Your task to perform on an android device: open the mobile data screen to see how much data has been used Image 0: 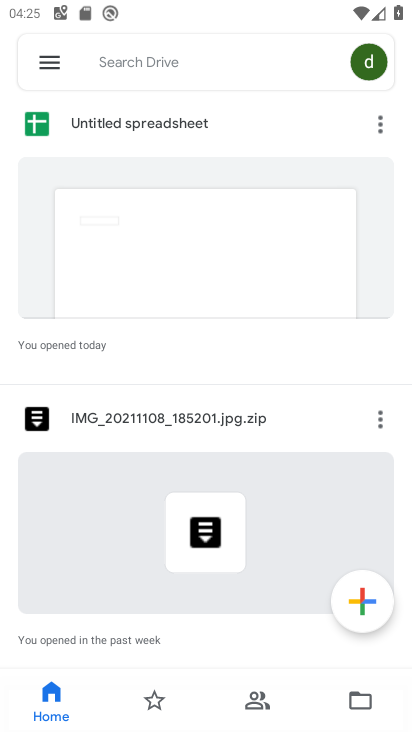
Step 0: press home button
Your task to perform on an android device: open the mobile data screen to see how much data has been used Image 1: 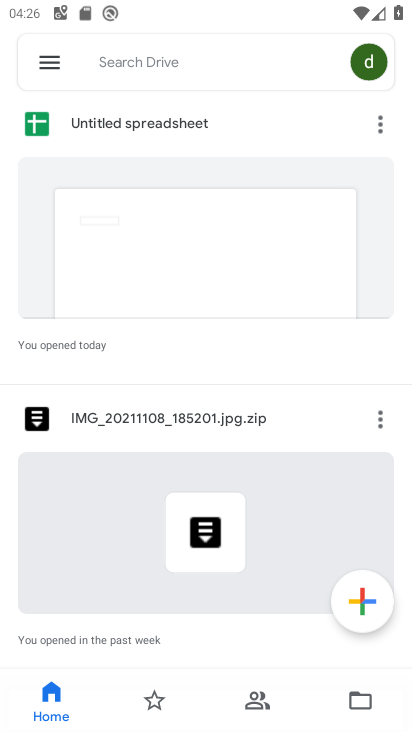
Step 1: press home button
Your task to perform on an android device: open the mobile data screen to see how much data has been used Image 2: 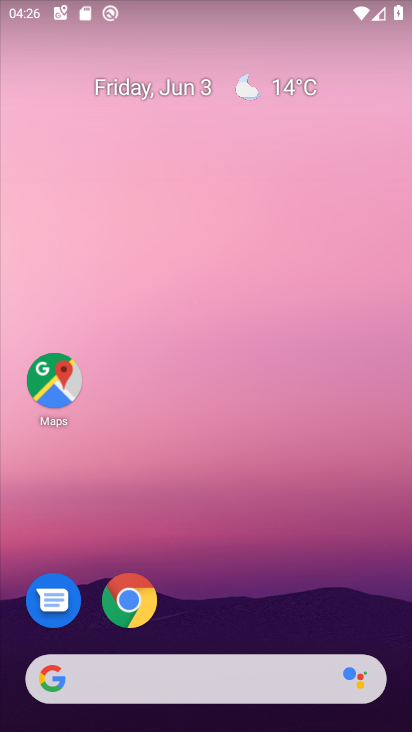
Step 2: drag from (307, 571) to (277, 189)
Your task to perform on an android device: open the mobile data screen to see how much data has been used Image 3: 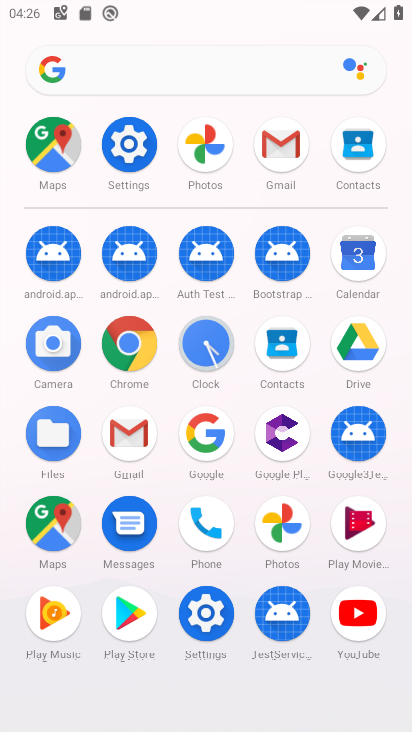
Step 3: click (133, 158)
Your task to perform on an android device: open the mobile data screen to see how much data has been used Image 4: 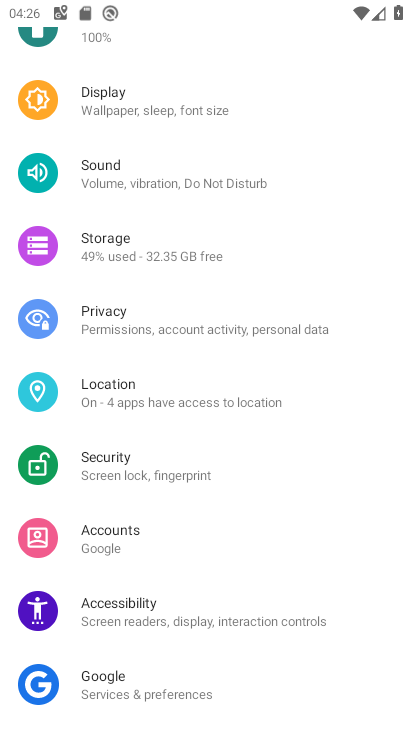
Step 4: drag from (235, 128) to (251, 522)
Your task to perform on an android device: open the mobile data screen to see how much data has been used Image 5: 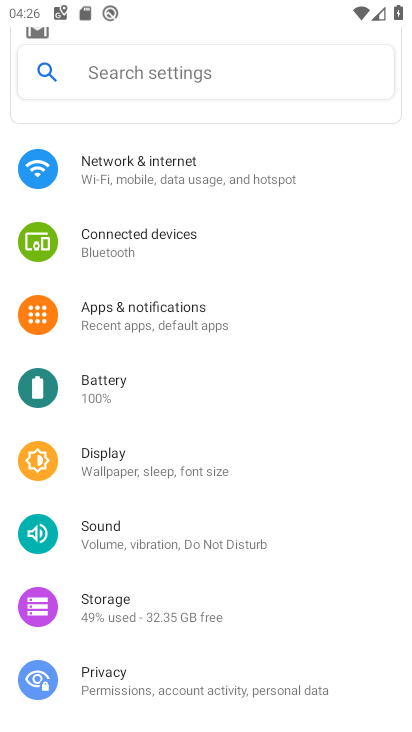
Step 5: click (203, 173)
Your task to perform on an android device: open the mobile data screen to see how much data has been used Image 6: 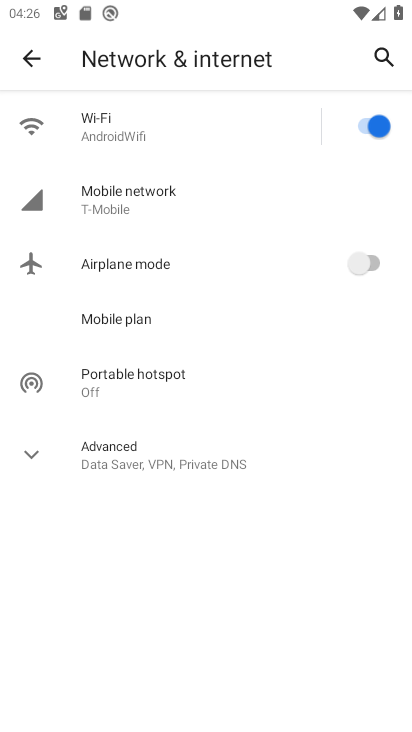
Step 6: click (192, 187)
Your task to perform on an android device: open the mobile data screen to see how much data has been used Image 7: 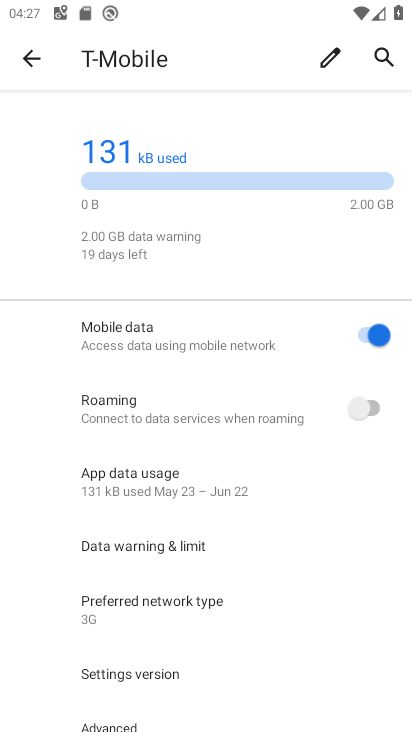
Step 7: task complete